Your task to perform on an android device: Go to accessibility settings Image 0: 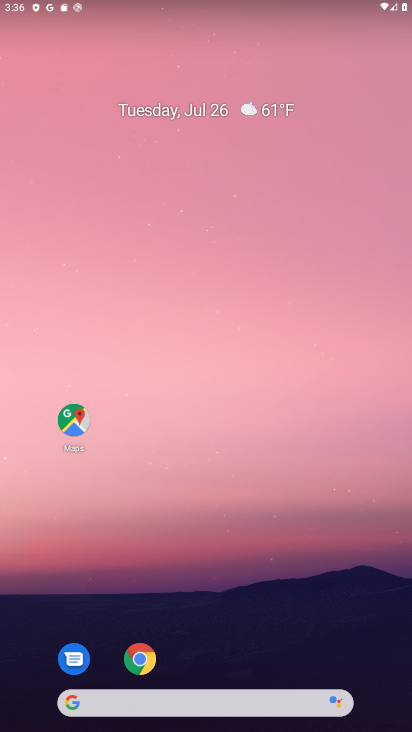
Step 0: drag from (318, 603) to (251, 0)
Your task to perform on an android device: Go to accessibility settings Image 1: 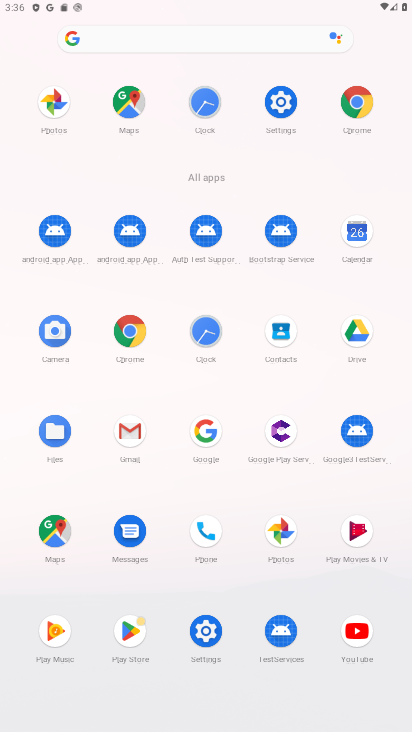
Step 1: click (282, 106)
Your task to perform on an android device: Go to accessibility settings Image 2: 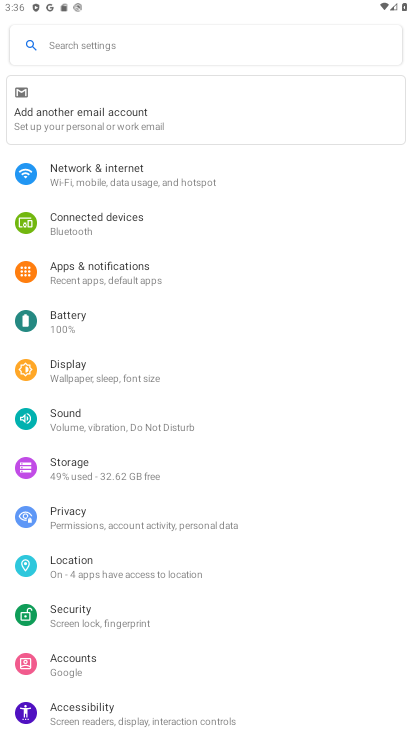
Step 2: drag from (245, 606) to (256, 162)
Your task to perform on an android device: Go to accessibility settings Image 3: 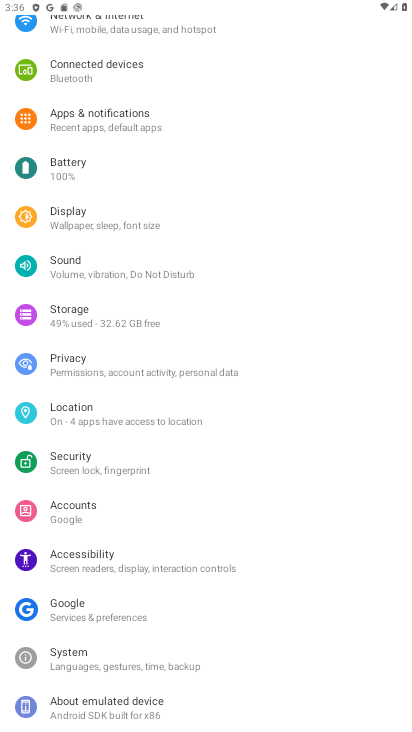
Step 3: click (61, 552)
Your task to perform on an android device: Go to accessibility settings Image 4: 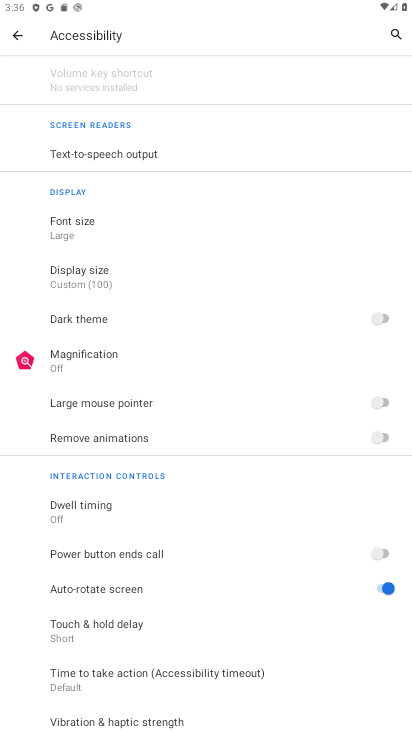
Step 4: task complete